Your task to perform on an android device: remove spam from my inbox in the gmail app Image 0: 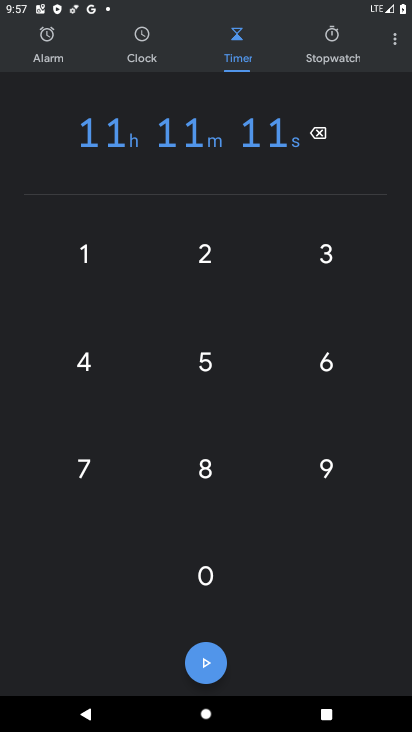
Step 0: press home button
Your task to perform on an android device: remove spam from my inbox in the gmail app Image 1: 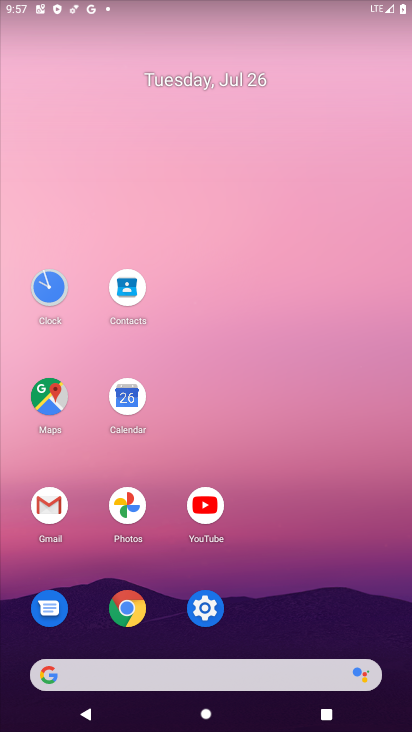
Step 1: click (52, 501)
Your task to perform on an android device: remove spam from my inbox in the gmail app Image 2: 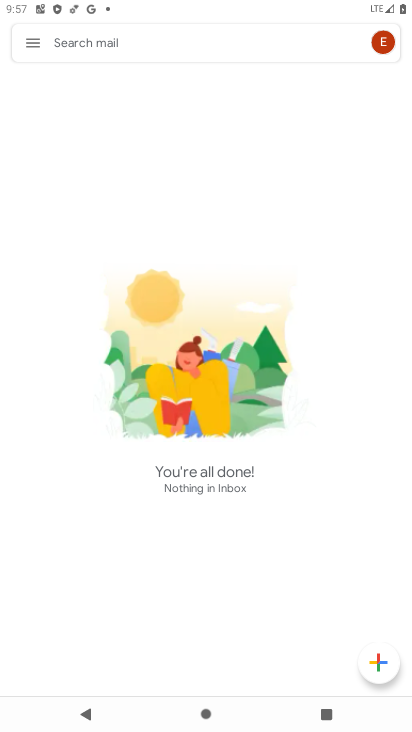
Step 2: click (25, 40)
Your task to perform on an android device: remove spam from my inbox in the gmail app Image 3: 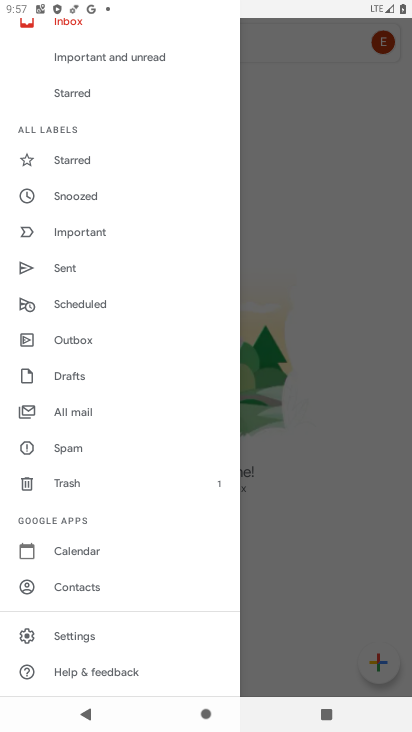
Step 3: click (60, 449)
Your task to perform on an android device: remove spam from my inbox in the gmail app Image 4: 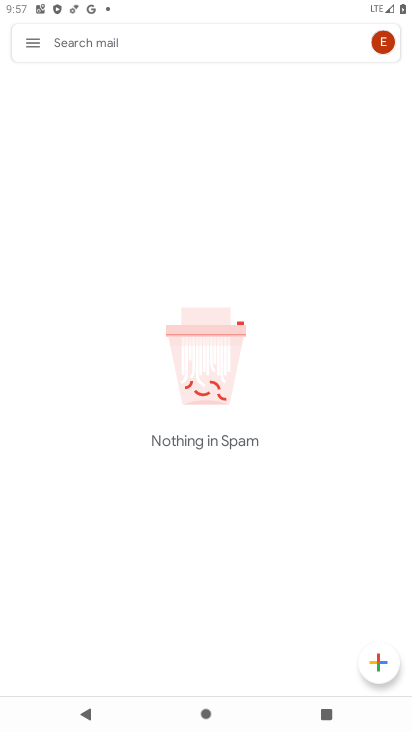
Step 4: task complete